Your task to perform on an android device: Check the weather Image 0: 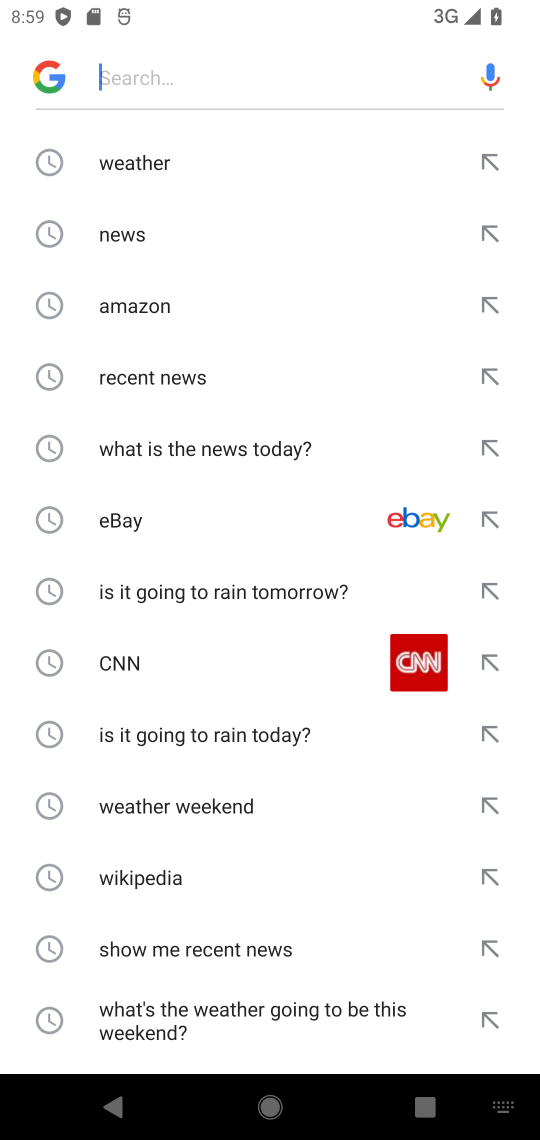
Step 0: press home button
Your task to perform on an android device: Check the weather Image 1: 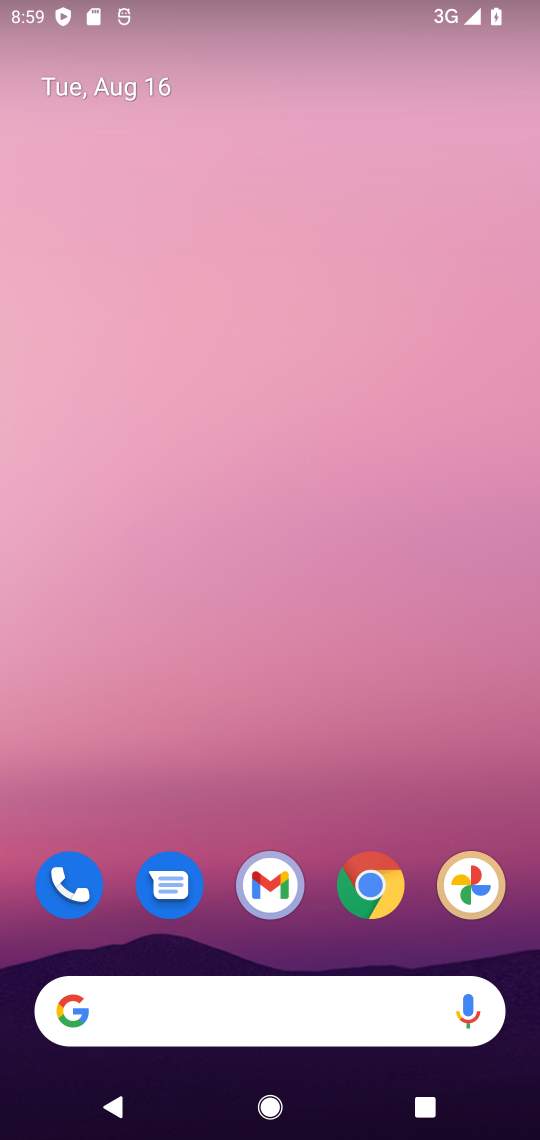
Step 1: click (187, 1003)
Your task to perform on an android device: Check the weather Image 2: 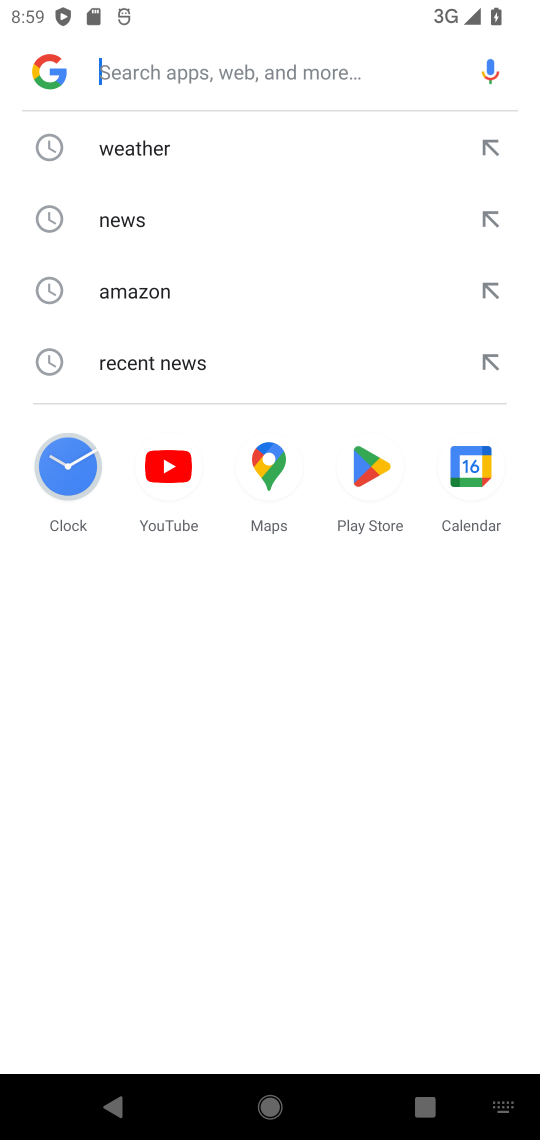
Step 2: click (121, 157)
Your task to perform on an android device: Check the weather Image 3: 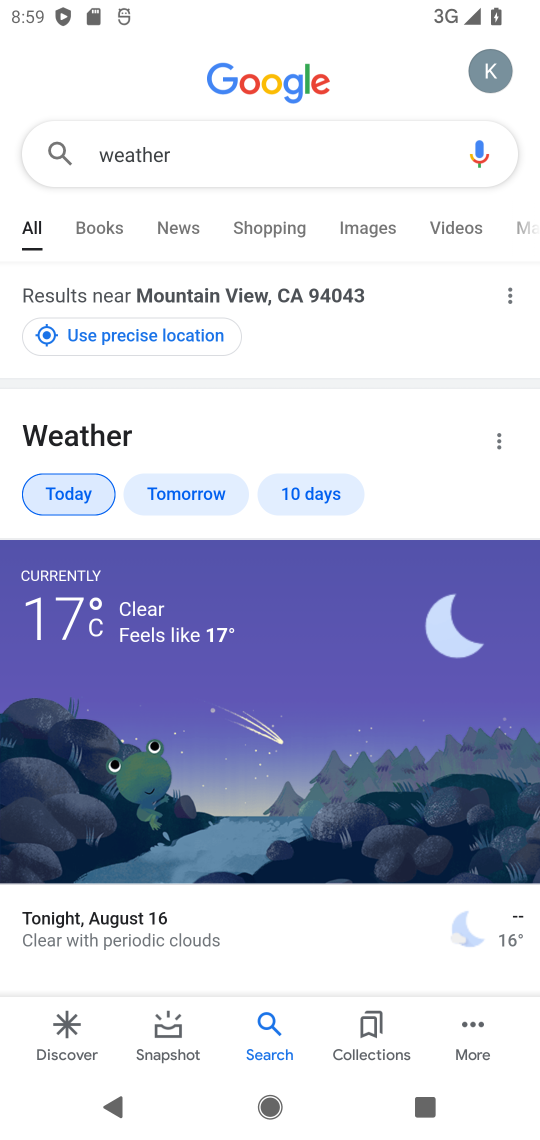
Step 3: task complete